Your task to perform on an android device: change the clock style Image 0: 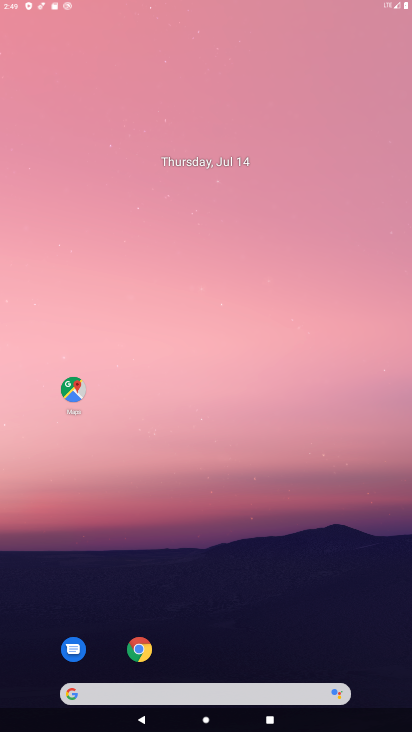
Step 0: drag from (244, 495) to (237, 21)
Your task to perform on an android device: change the clock style Image 1: 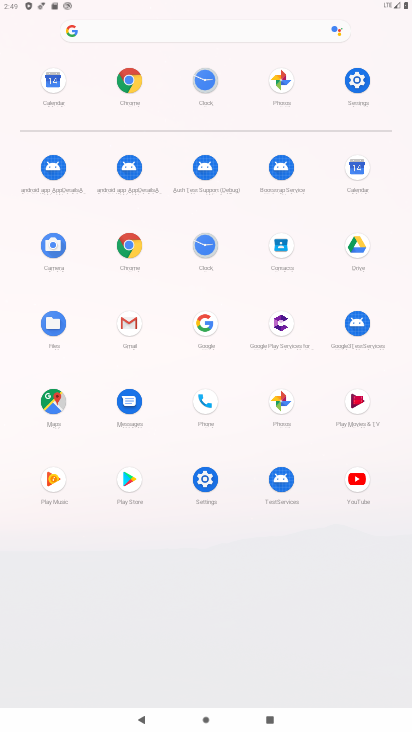
Step 1: click (210, 256)
Your task to perform on an android device: change the clock style Image 2: 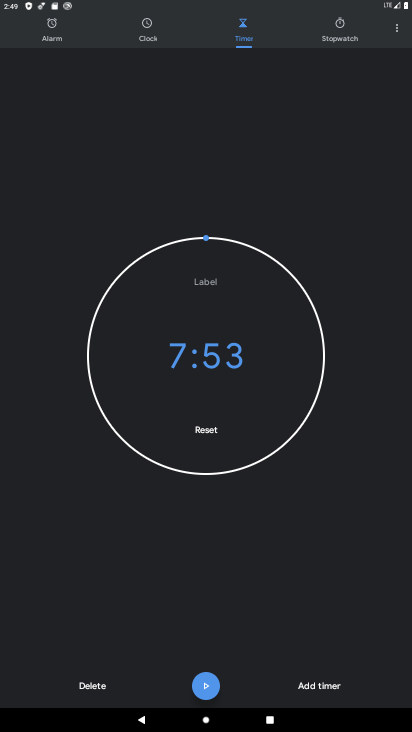
Step 2: click (396, 35)
Your task to perform on an android device: change the clock style Image 3: 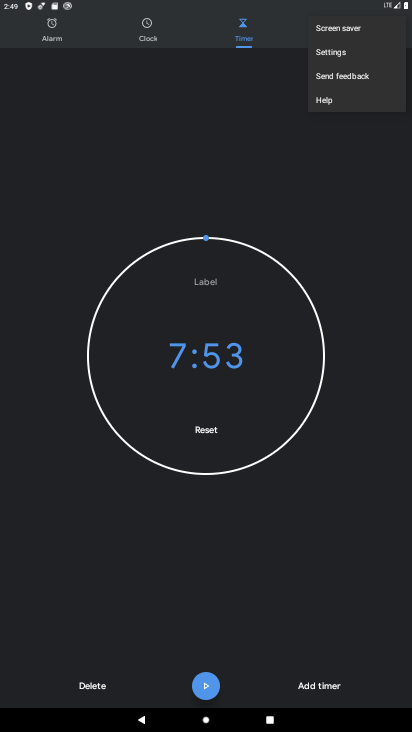
Step 3: click (344, 58)
Your task to perform on an android device: change the clock style Image 4: 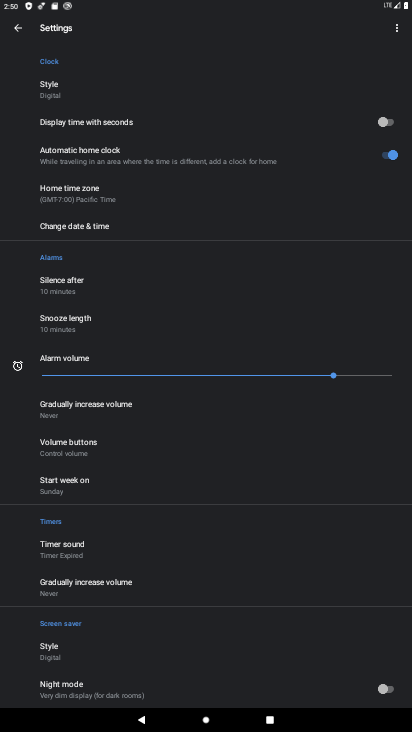
Step 4: click (69, 95)
Your task to perform on an android device: change the clock style Image 5: 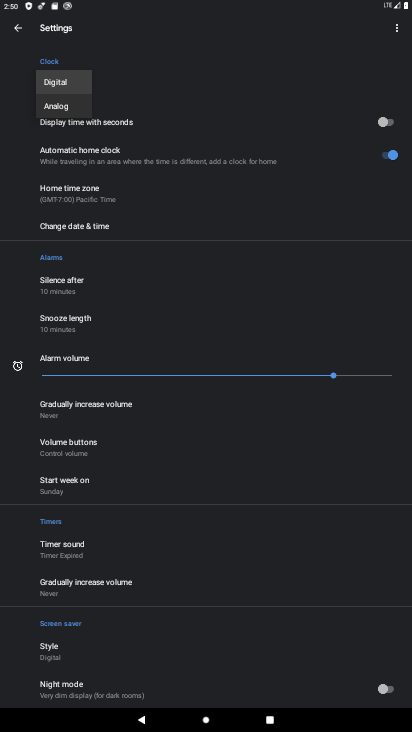
Step 5: click (61, 101)
Your task to perform on an android device: change the clock style Image 6: 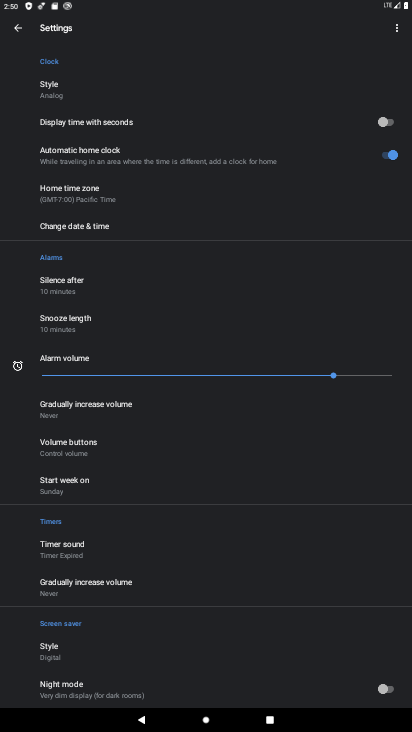
Step 6: task complete